Your task to perform on an android device: turn notification dots off Image 0: 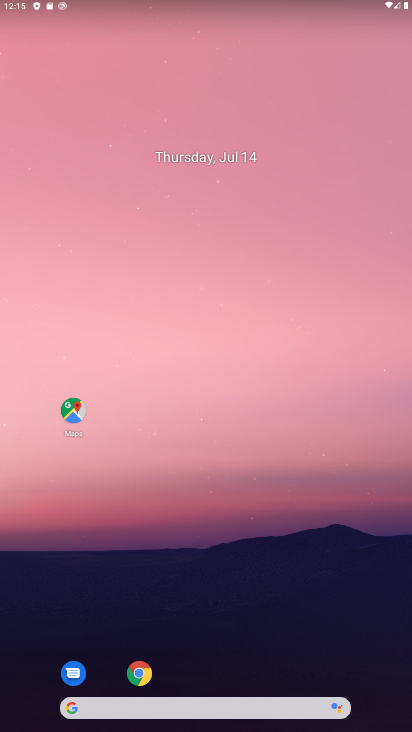
Step 0: drag from (224, 654) to (301, 2)
Your task to perform on an android device: turn notification dots off Image 1: 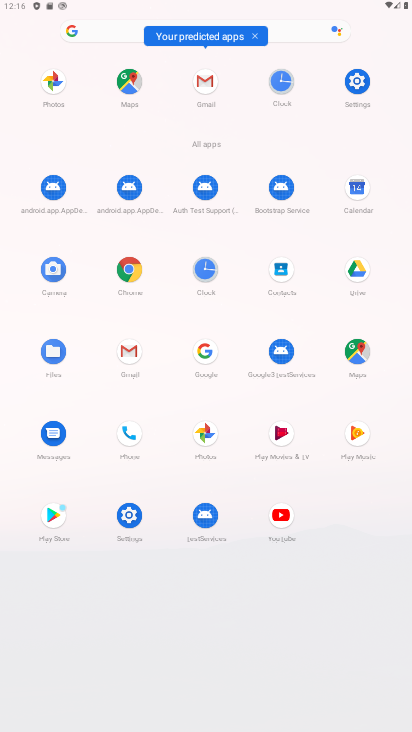
Step 1: click (356, 96)
Your task to perform on an android device: turn notification dots off Image 2: 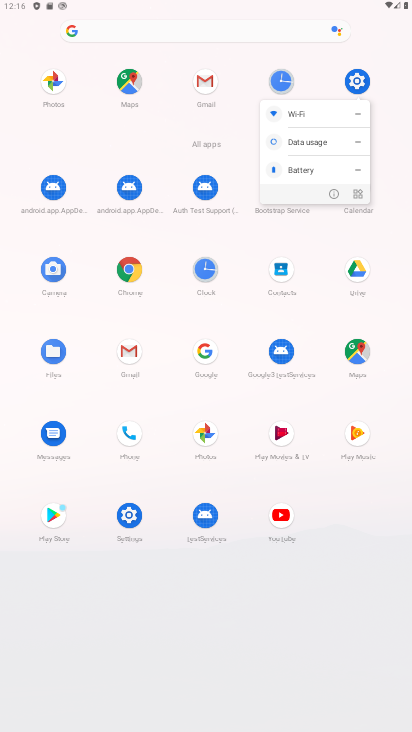
Step 2: click (355, 83)
Your task to perform on an android device: turn notification dots off Image 3: 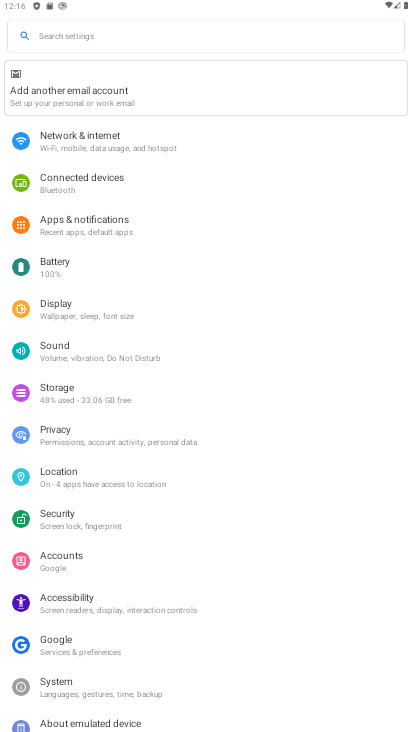
Step 3: click (139, 228)
Your task to perform on an android device: turn notification dots off Image 4: 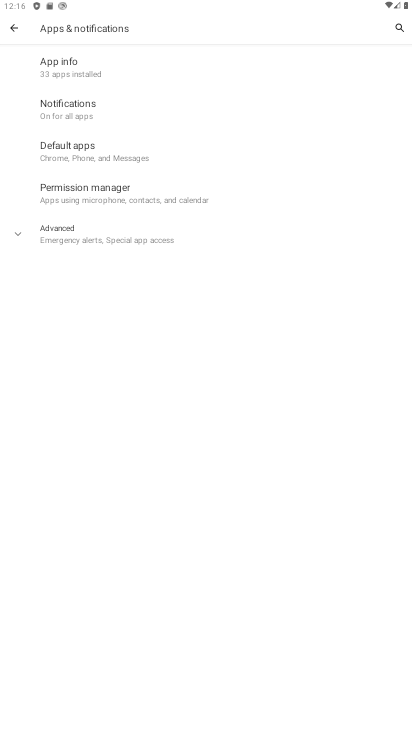
Step 4: click (126, 100)
Your task to perform on an android device: turn notification dots off Image 5: 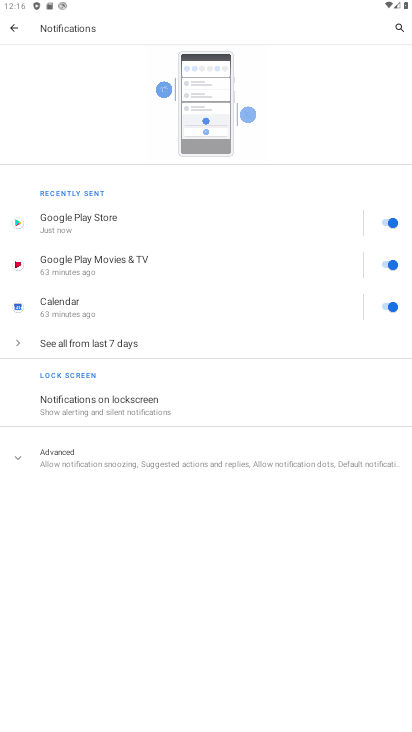
Step 5: click (190, 462)
Your task to perform on an android device: turn notification dots off Image 6: 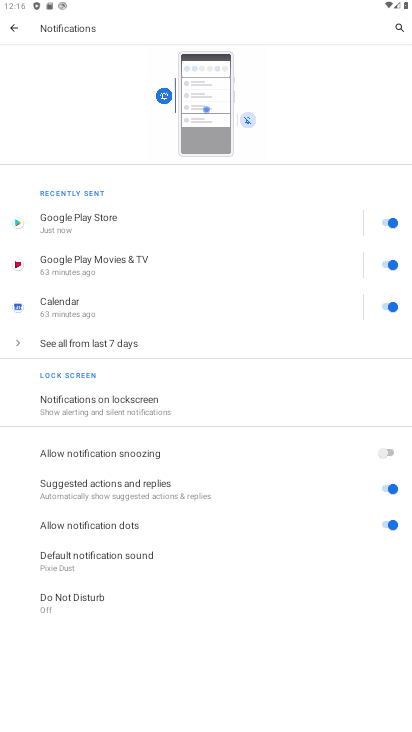
Step 6: click (391, 530)
Your task to perform on an android device: turn notification dots off Image 7: 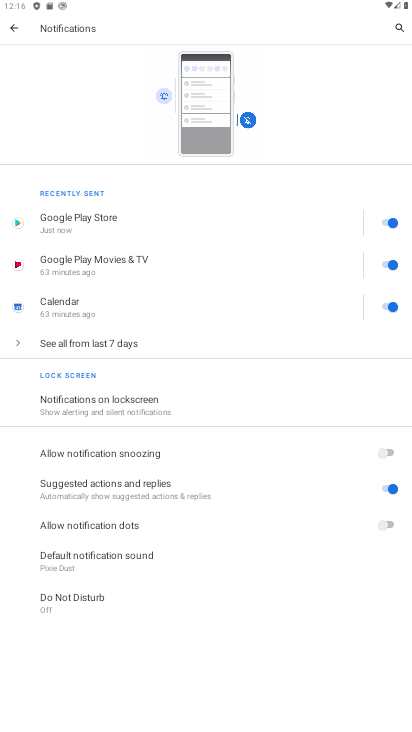
Step 7: task complete